Your task to perform on an android device: Search for flights from NYC to Buenos aires Image 0: 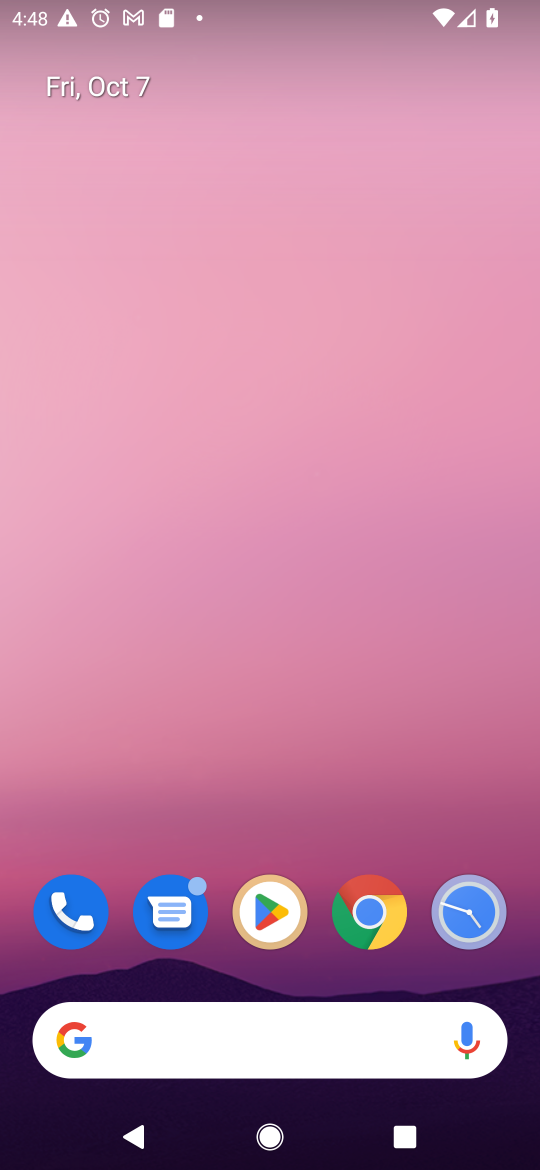
Step 0: drag from (280, 995) to (319, 559)
Your task to perform on an android device: Search for flights from NYC to Buenos aires Image 1: 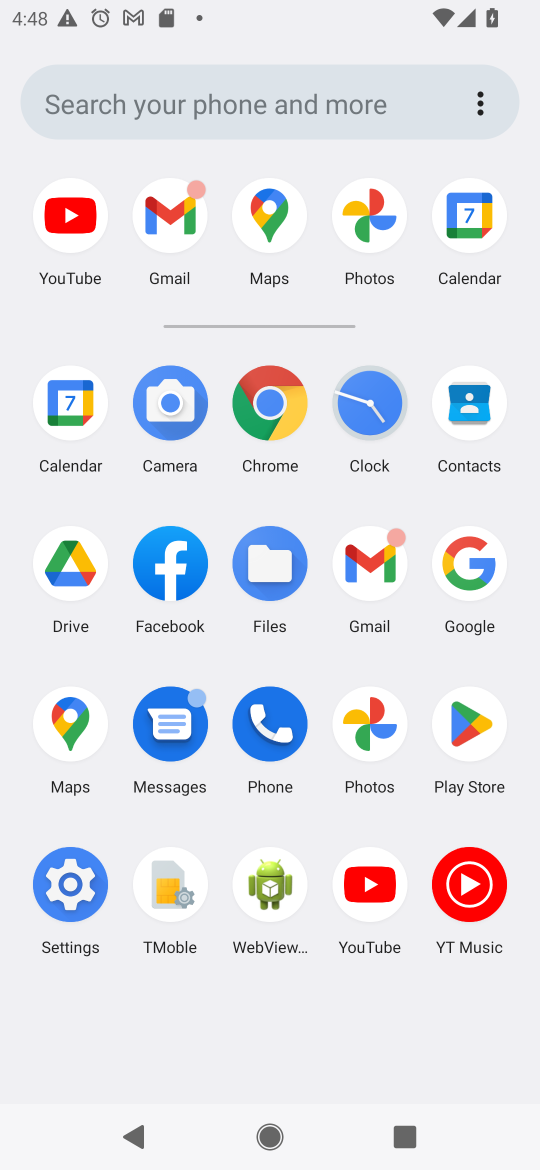
Step 1: click (474, 562)
Your task to perform on an android device: Search for flights from NYC to Buenos aires Image 2: 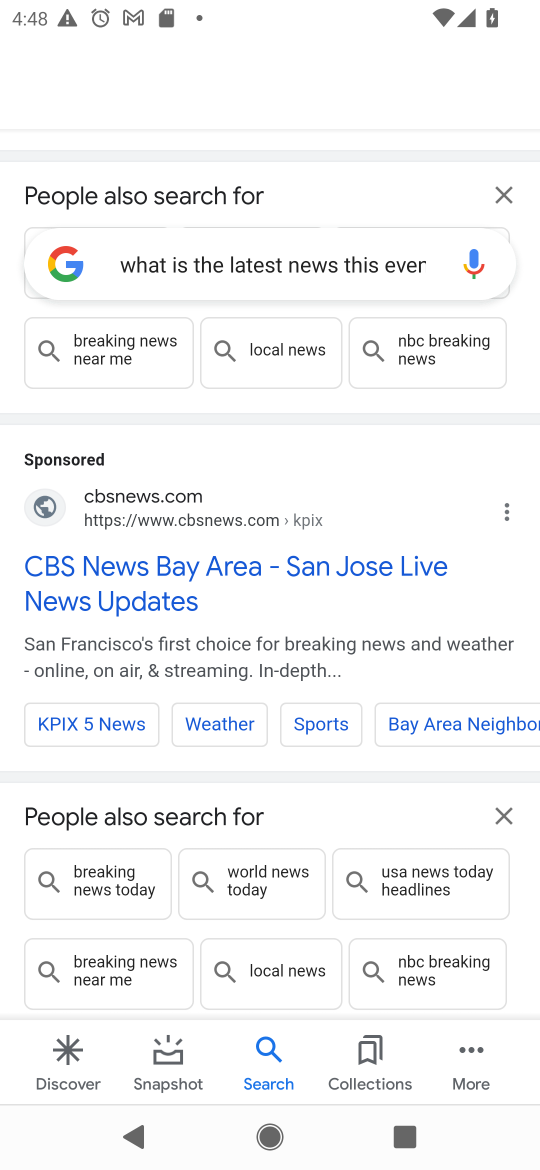
Step 2: click (494, 182)
Your task to perform on an android device: Search for flights from NYC to Buenos aires Image 3: 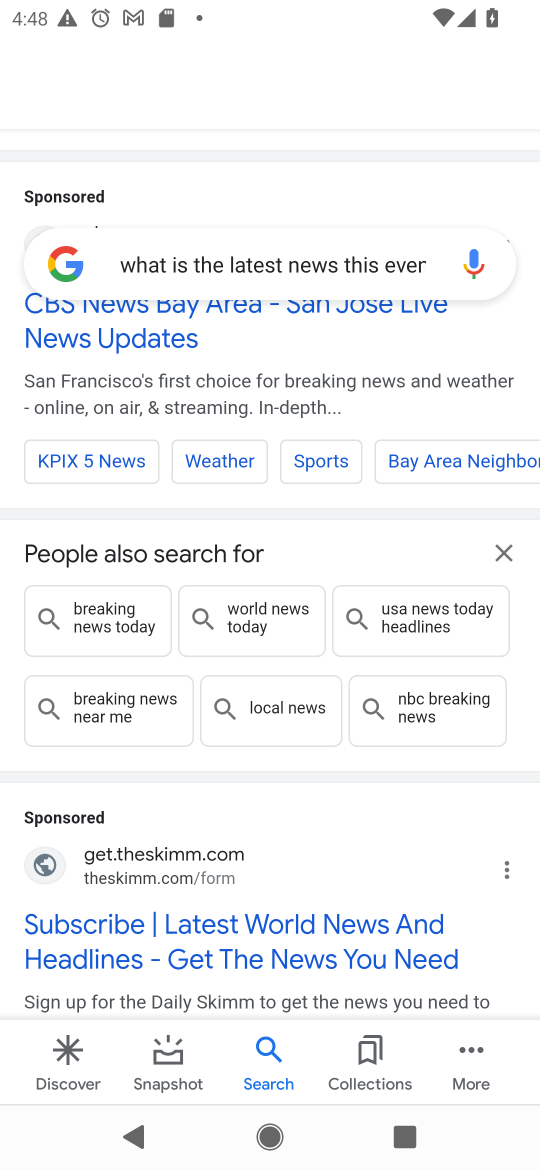
Step 3: click (424, 258)
Your task to perform on an android device: Search for flights from NYC to Buenos aires Image 4: 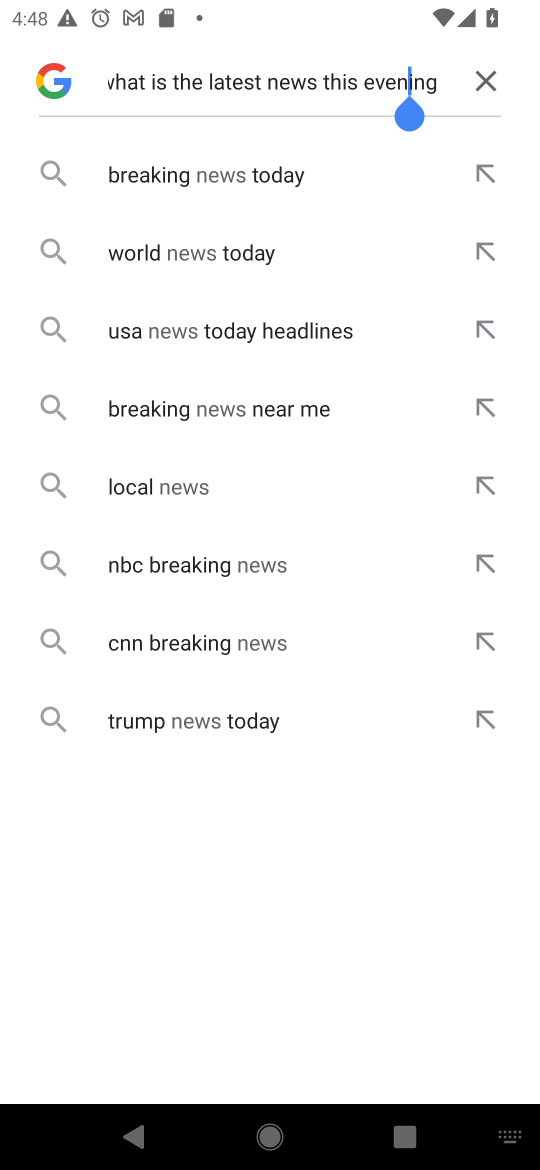
Step 4: click (469, 72)
Your task to perform on an android device: Search for flights from NYC to Buenos aires Image 5: 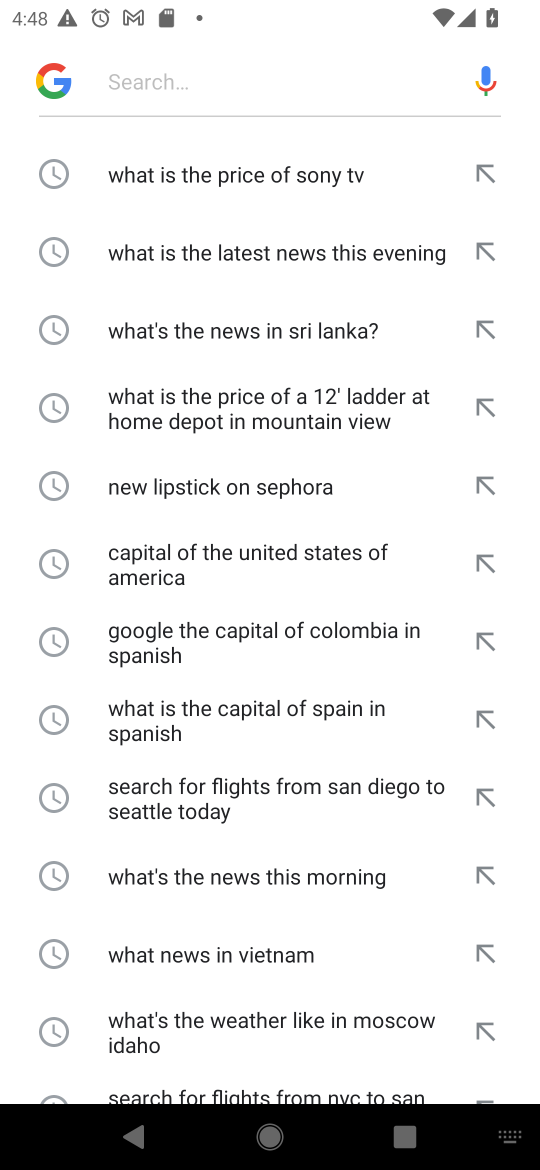
Step 5: click (292, 69)
Your task to perform on an android device: Search for flights from NYC to Buenos aires Image 6: 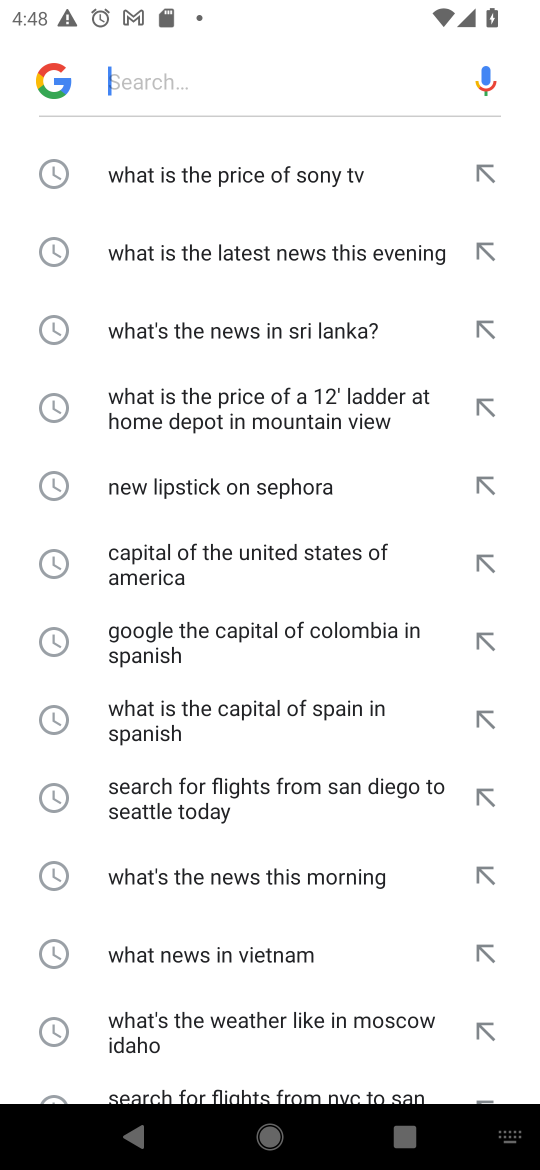
Step 6: type "Search for flights from NYC to Buenos aires "
Your task to perform on an android device: Search for flights from NYC to Buenos aires Image 7: 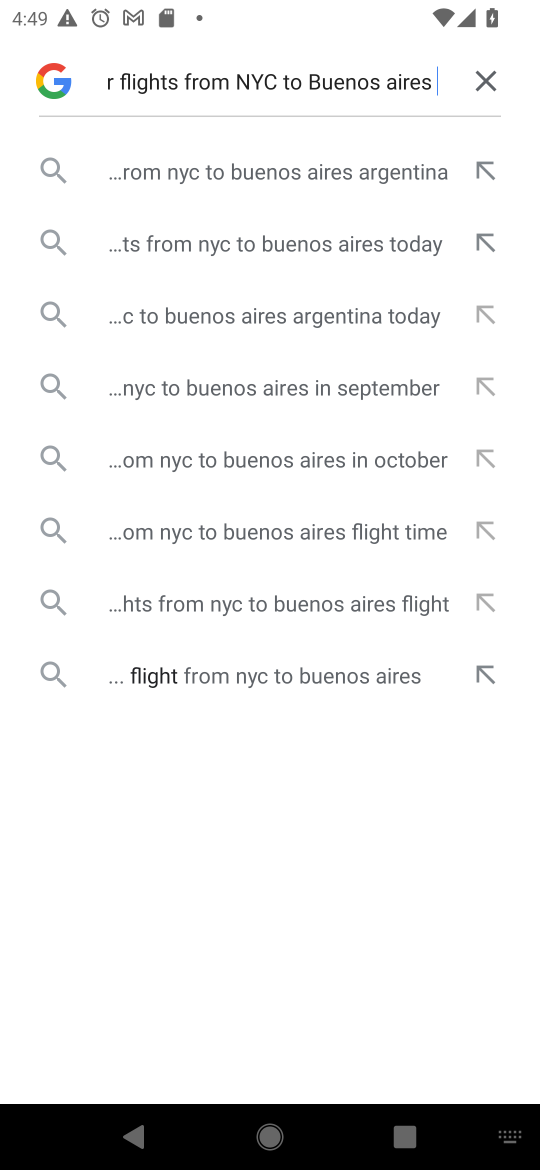
Step 7: click (311, 248)
Your task to perform on an android device: Search for flights from NYC to Buenos aires Image 8: 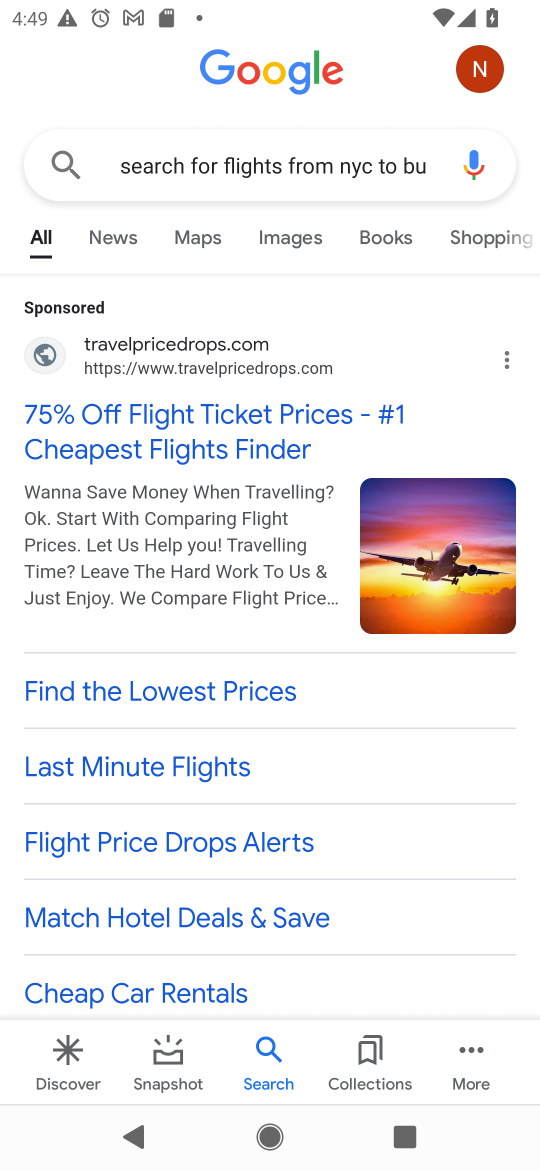
Step 8: click (148, 401)
Your task to perform on an android device: Search for flights from NYC to Buenos aires Image 9: 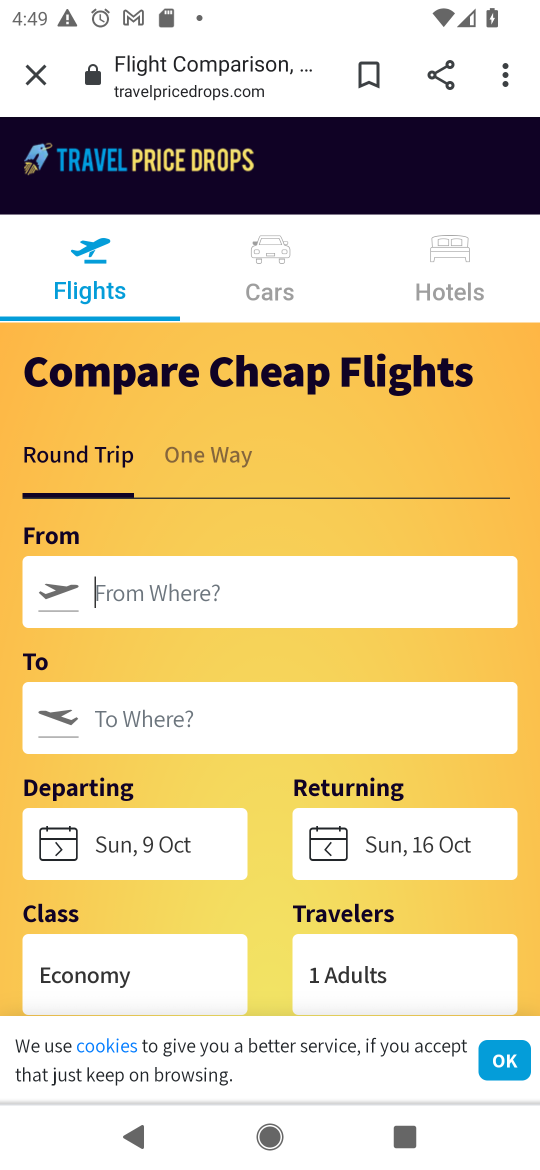
Step 9: click (258, 571)
Your task to perform on an android device: Search for flights from NYC to Buenos aires Image 10: 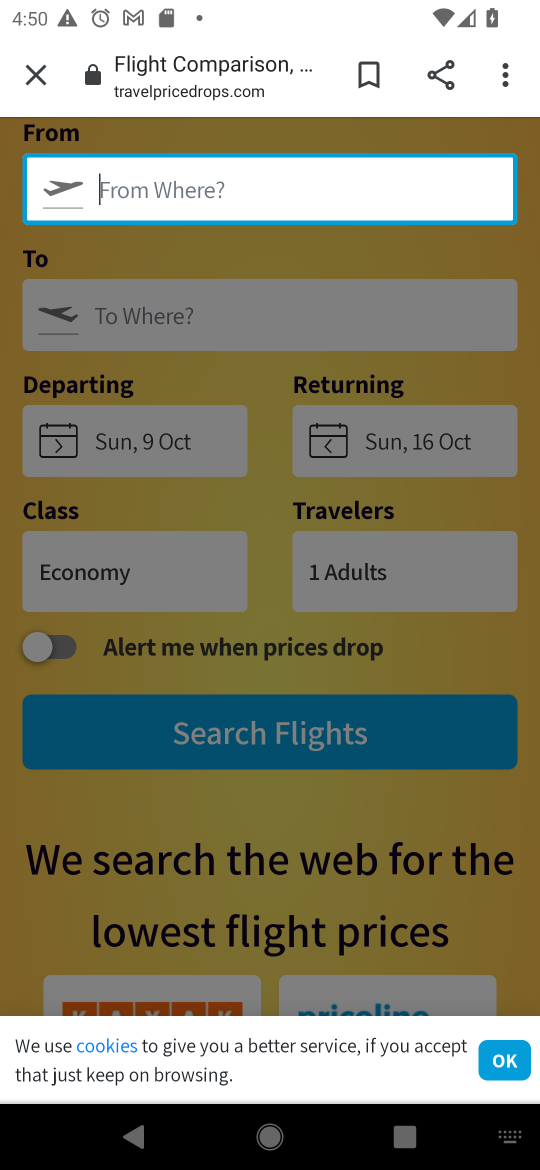
Step 10: type "nyc"
Your task to perform on an android device: Search for flights from NYC to Buenos aires Image 11: 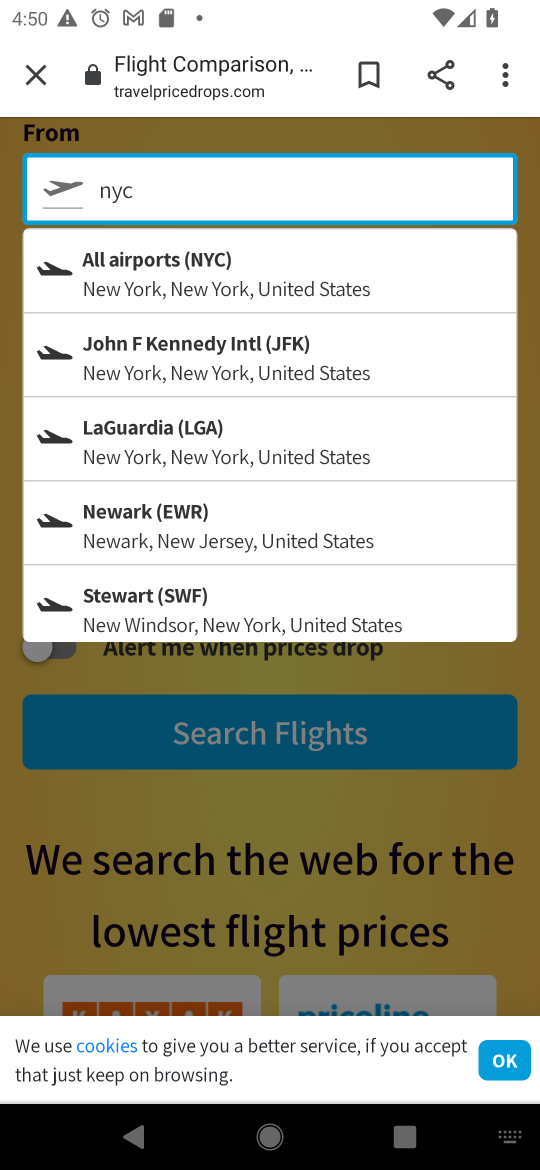
Step 11: click (218, 285)
Your task to perform on an android device: Search for flights from NYC to Buenos aires Image 12: 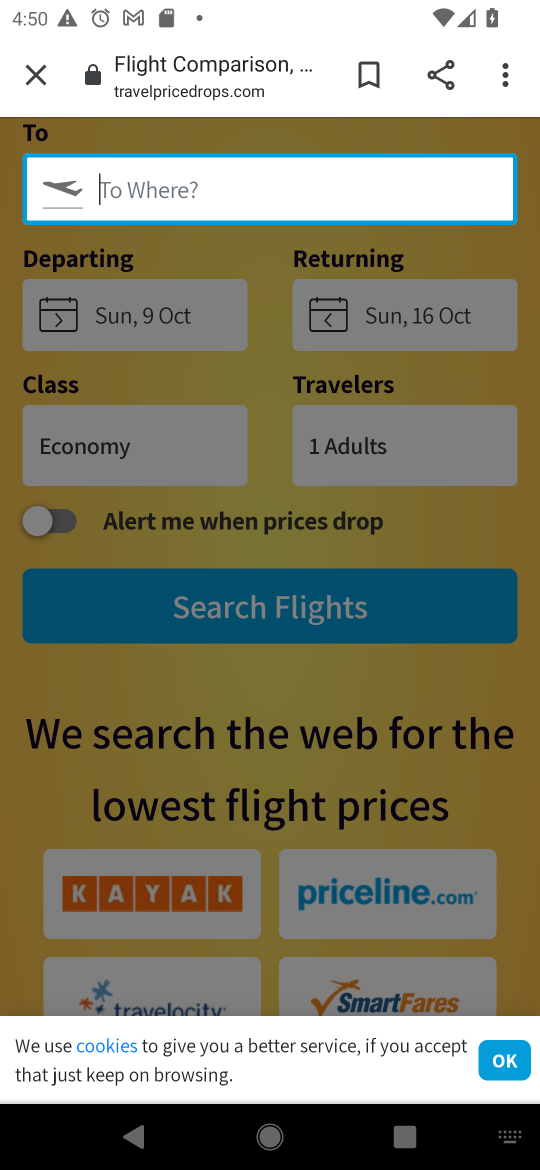
Step 12: click (270, 178)
Your task to perform on an android device: Search for flights from NYC to Buenos aires Image 13: 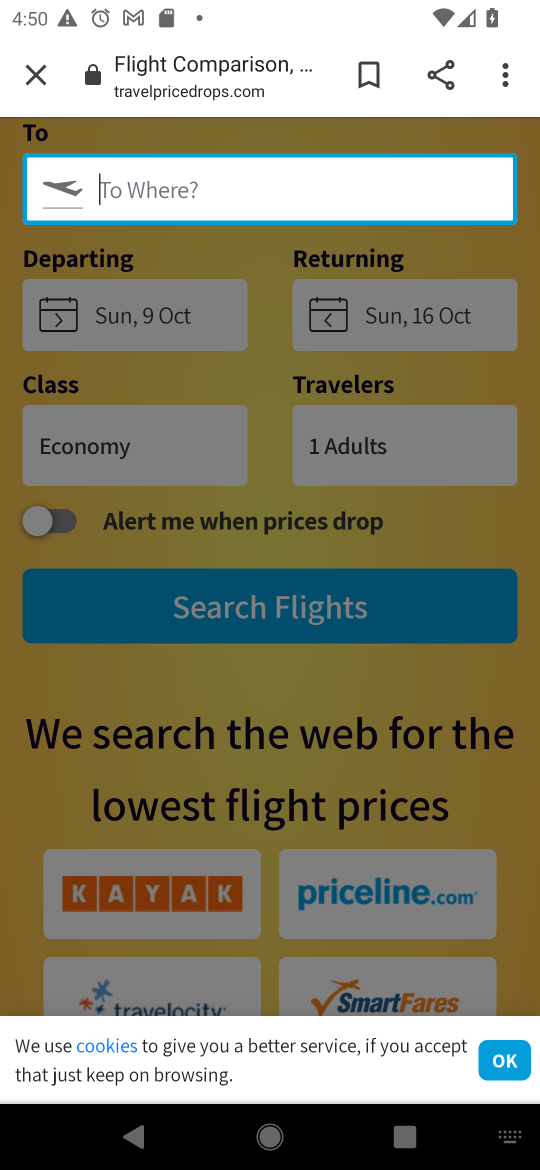
Step 13: type "Buenos aires "
Your task to perform on an android device: Search for flights from NYC to Buenos aires Image 14: 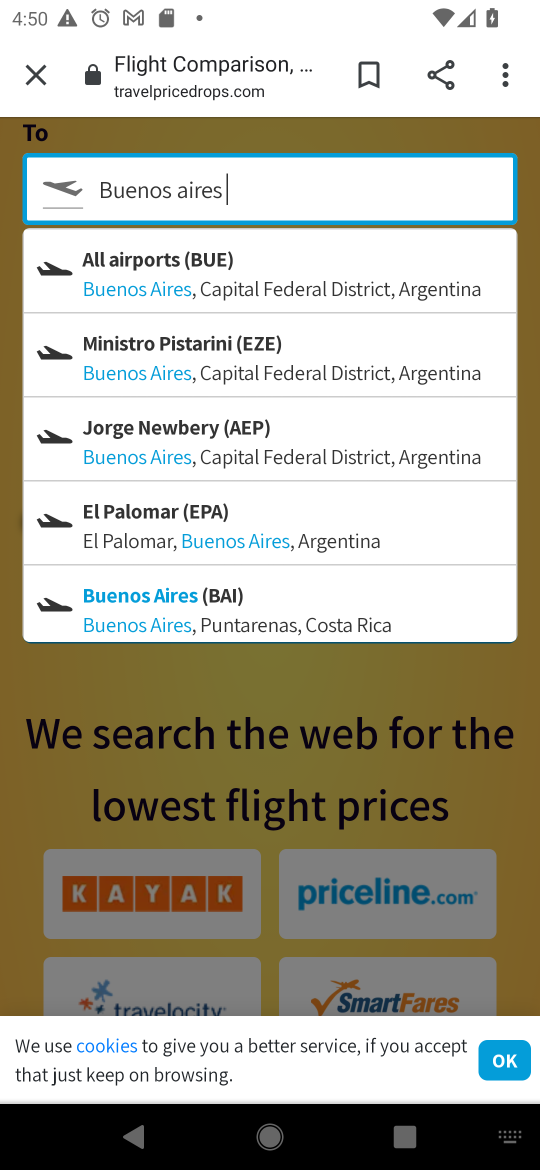
Step 14: click (224, 279)
Your task to perform on an android device: Search for flights from NYC to Buenos aires Image 15: 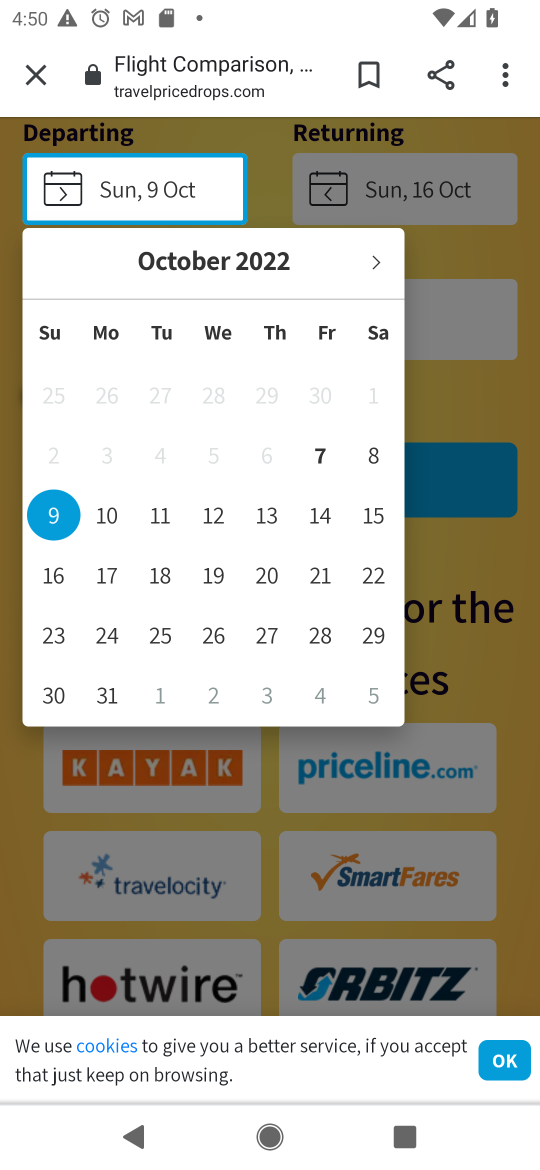
Step 15: click (58, 510)
Your task to perform on an android device: Search for flights from NYC to Buenos aires Image 16: 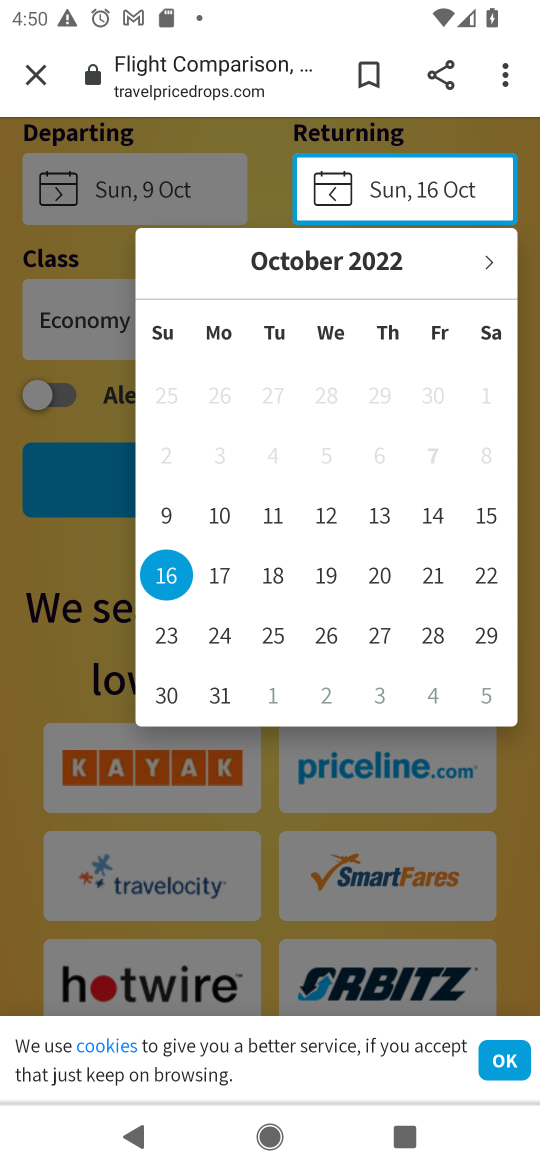
Step 16: click (211, 555)
Your task to perform on an android device: Search for flights from NYC to Buenos aires Image 17: 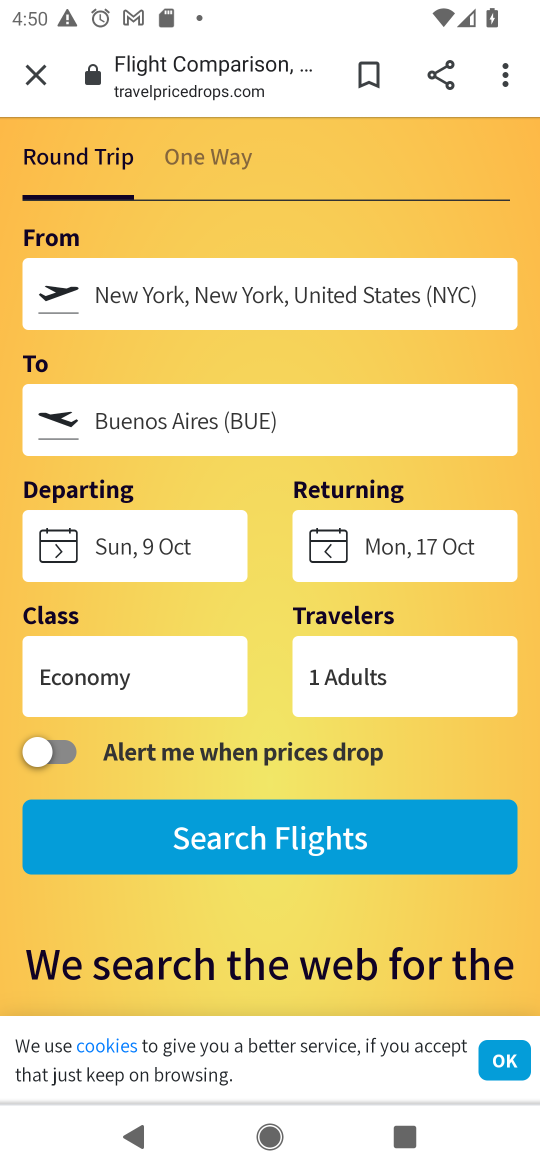
Step 17: click (285, 847)
Your task to perform on an android device: Search for flights from NYC to Buenos aires Image 18: 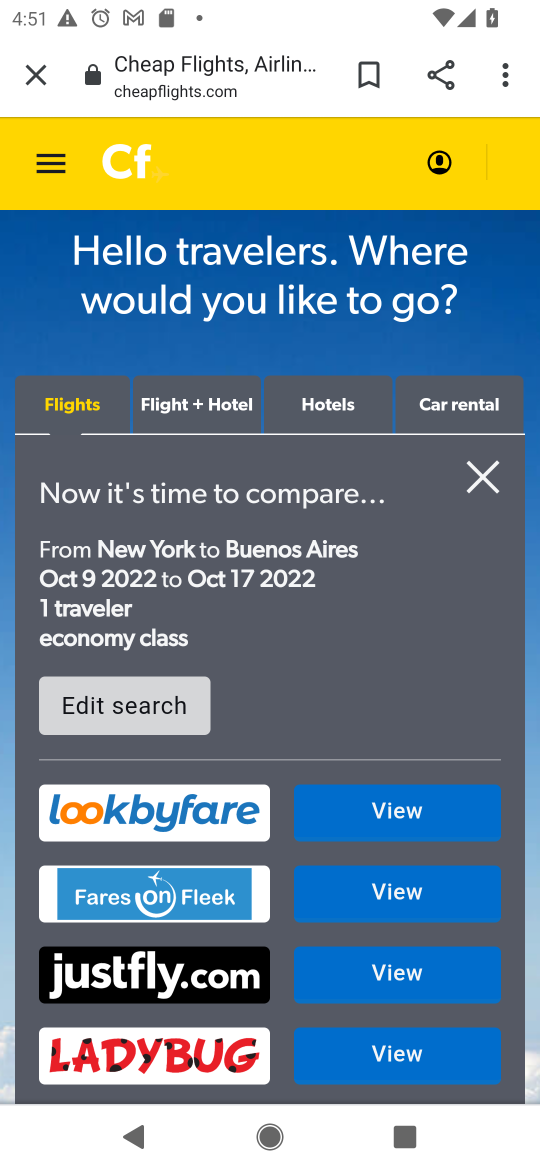
Step 18: task complete